Your task to perform on an android device: turn notification dots off Image 0: 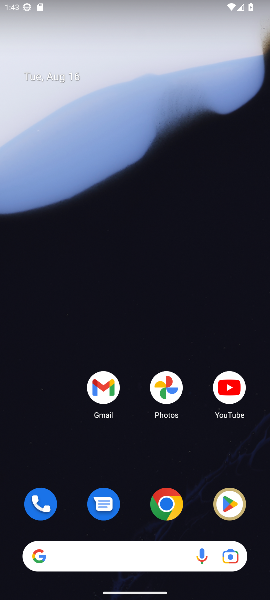
Step 0: drag from (139, 506) to (125, 78)
Your task to perform on an android device: turn notification dots off Image 1: 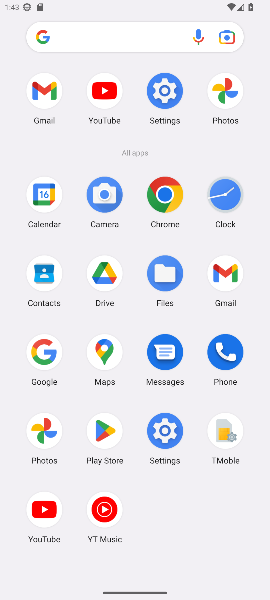
Step 1: click (167, 88)
Your task to perform on an android device: turn notification dots off Image 2: 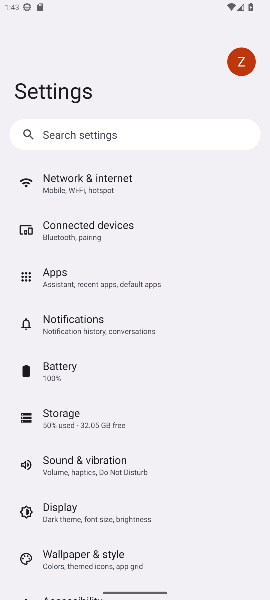
Step 2: click (79, 317)
Your task to perform on an android device: turn notification dots off Image 3: 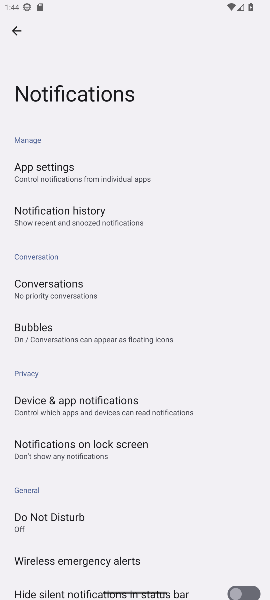
Step 3: drag from (178, 485) to (181, 343)
Your task to perform on an android device: turn notification dots off Image 4: 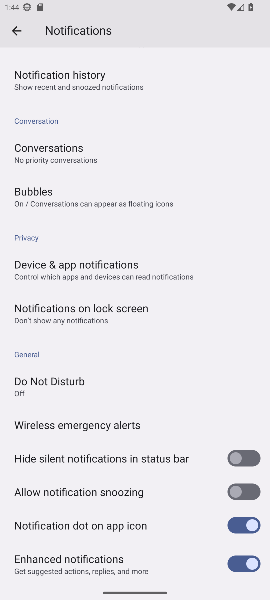
Step 4: click (250, 525)
Your task to perform on an android device: turn notification dots off Image 5: 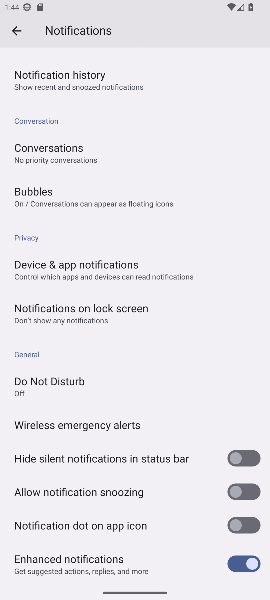
Step 5: task complete